Your task to perform on an android device: toggle notification dots Image 0: 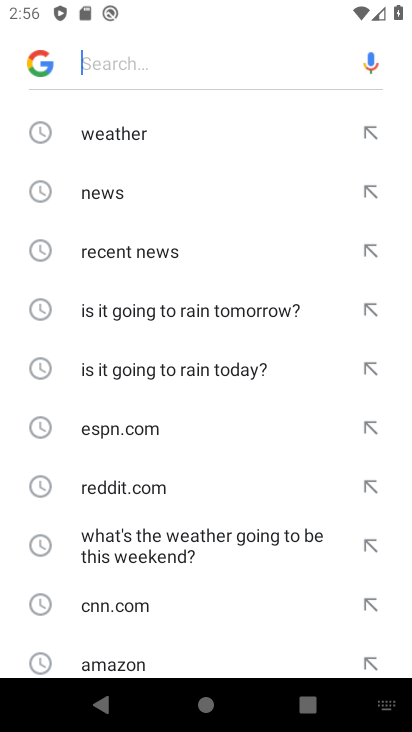
Step 0: press home button
Your task to perform on an android device: toggle notification dots Image 1: 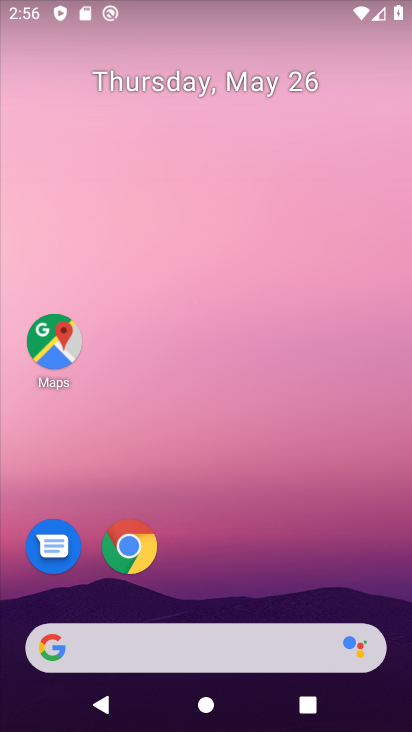
Step 1: drag from (237, 518) to (264, 62)
Your task to perform on an android device: toggle notification dots Image 2: 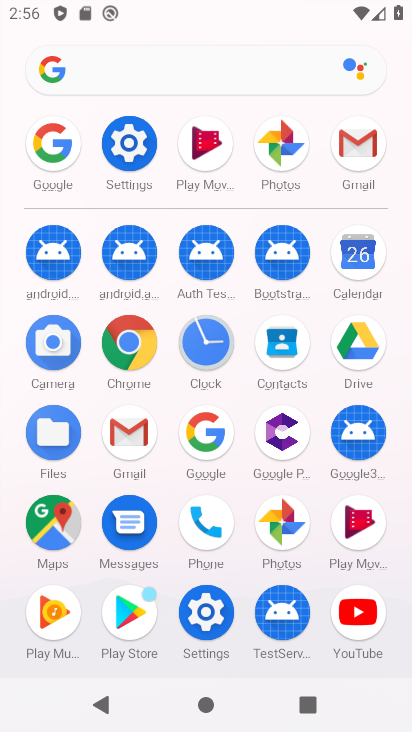
Step 2: click (125, 151)
Your task to perform on an android device: toggle notification dots Image 3: 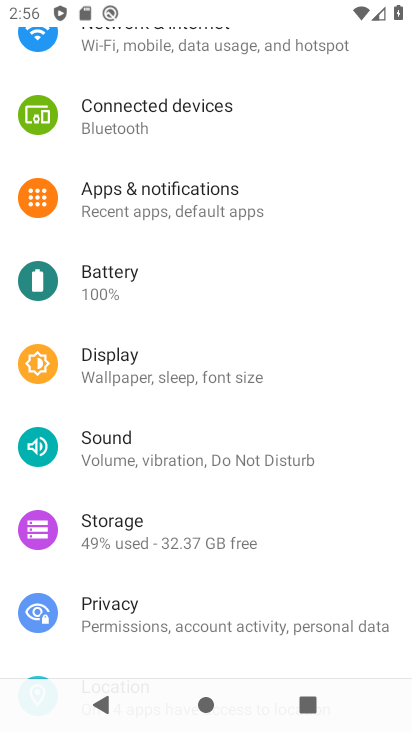
Step 3: drag from (208, 133) to (170, 583)
Your task to perform on an android device: toggle notification dots Image 4: 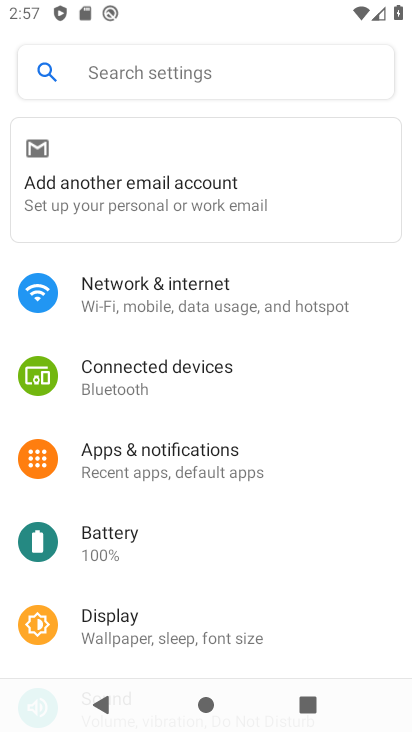
Step 4: click (169, 443)
Your task to perform on an android device: toggle notification dots Image 5: 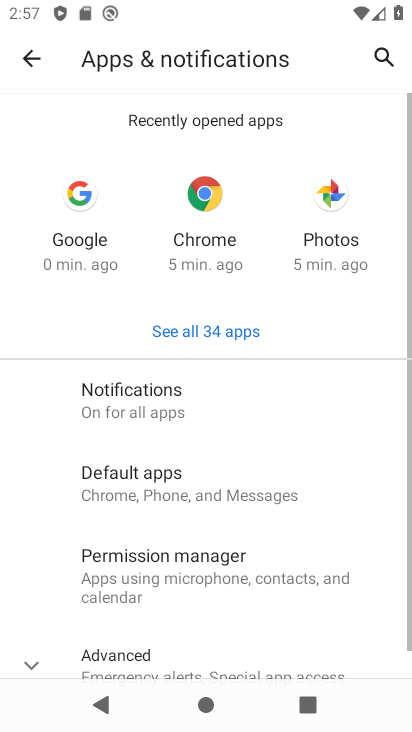
Step 5: click (211, 405)
Your task to perform on an android device: toggle notification dots Image 6: 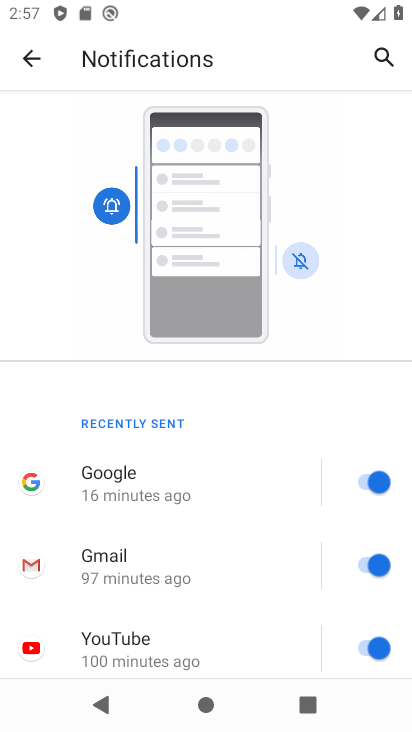
Step 6: drag from (255, 526) to (253, 9)
Your task to perform on an android device: toggle notification dots Image 7: 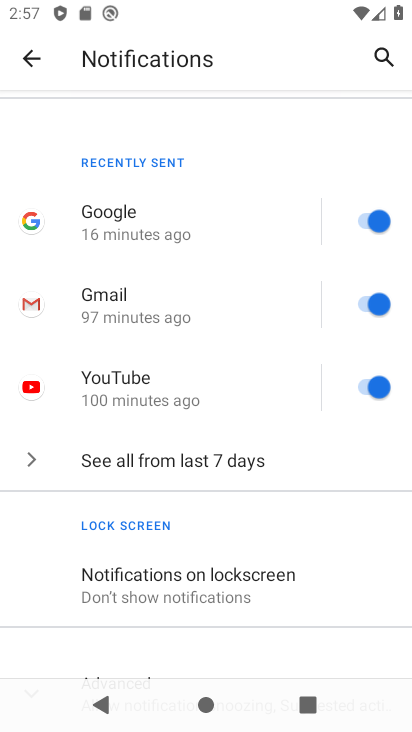
Step 7: drag from (229, 554) to (242, 267)
Your task to perform on an android device: toggle notification dots Image 8: 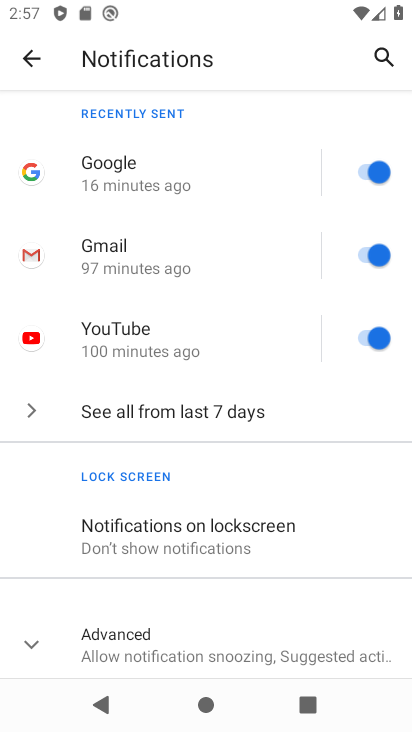
Step 8: click (214, 638)
Your task to perform on an android device: toggle notification dots Image 9: 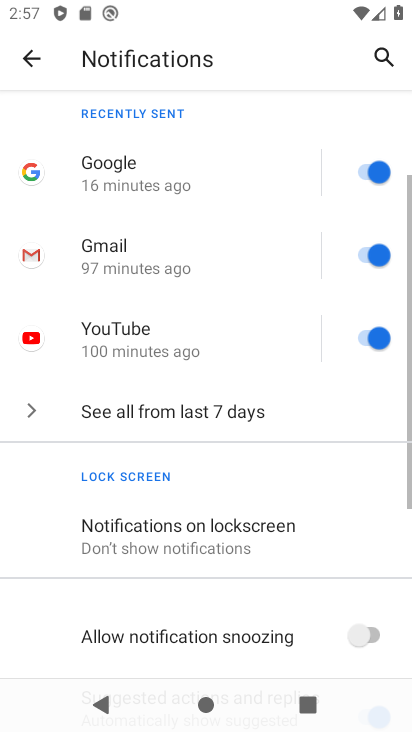
Step 9: drag from (298, 542) to (242, 20)
Your task to perform on an android device: toggle notification dots Image 10: 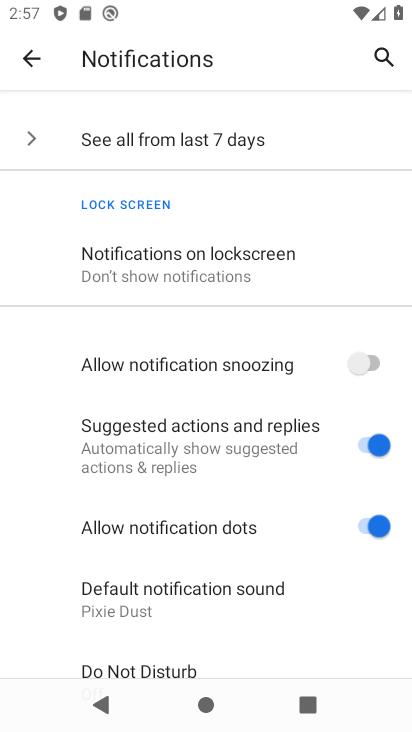
Step 10: click (371, 524)
Your task to perform on an android device: toggle notification dots Image 11: 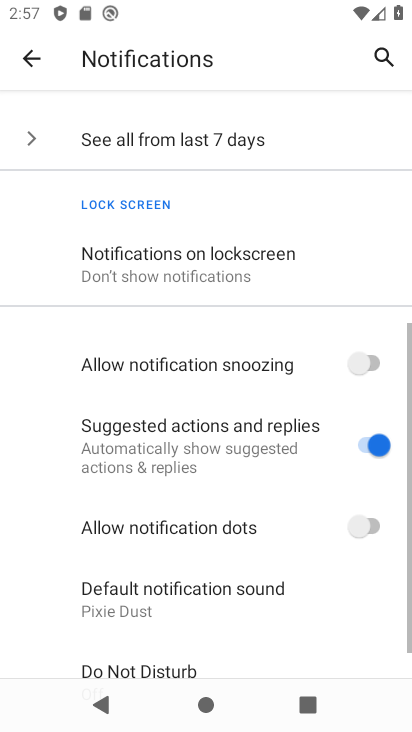
Step 11: task complete